Your task to perform on an android device: refresh tabs in the chrome app Image 0: 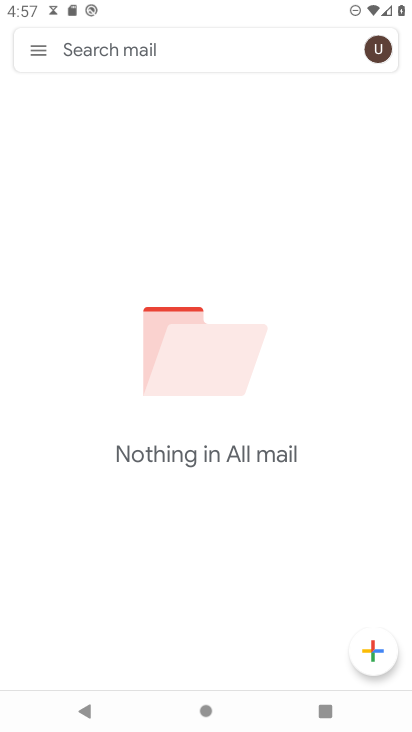
Step 0: press back button
Your task to perform on an android device: refresh tabs in the chrome app Image 1: 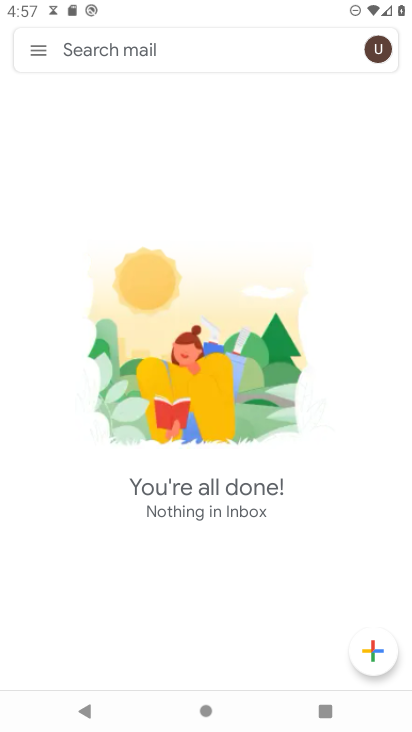
Step 1: press home button
Your task to perform on an android device: refresh tabs in the chrome app Image 2: 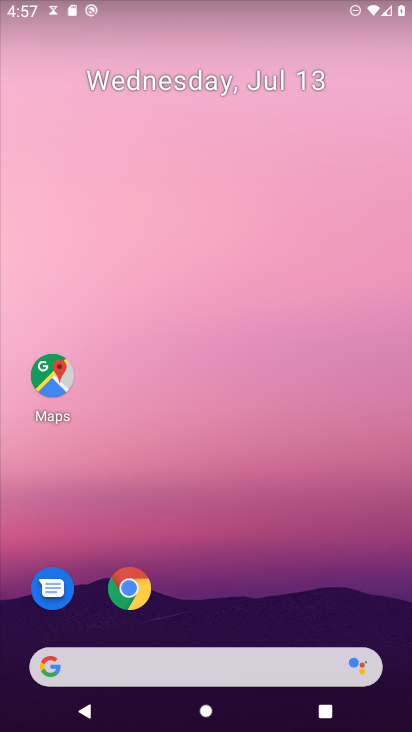
Step 2: drag from (294, 667) to (212, 8)
Your task to perform on an android device: refresh tabs in the chrome app Image 3: 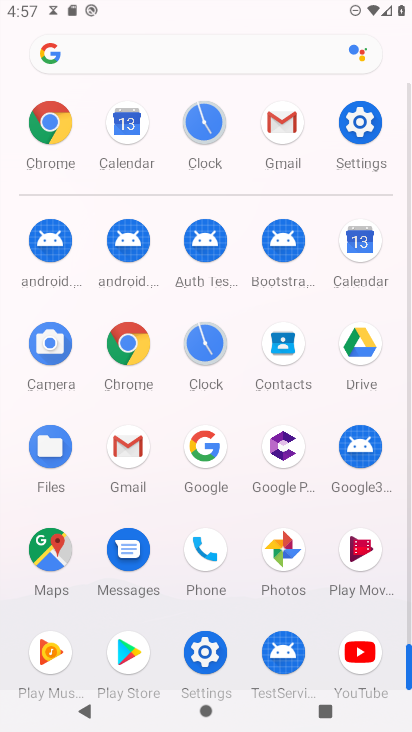
Step 3: click (46, 128)
Your task to perform on an android device: refresh tabs in the chrome app Image 4: 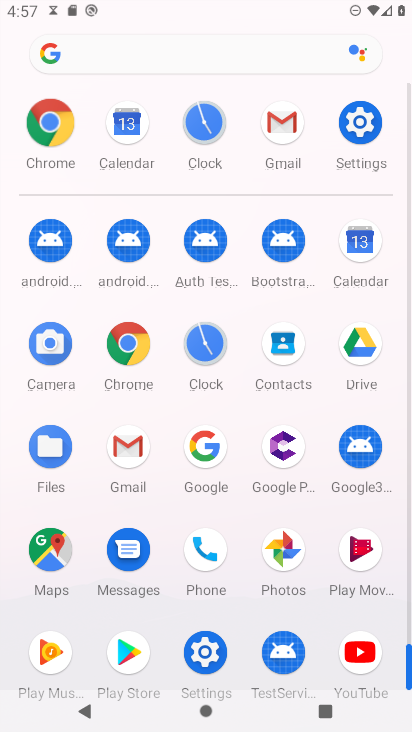
Step 4: click (46, 127)
Your task to perform on an android device: refresh tabs in the chrome app Image 5: 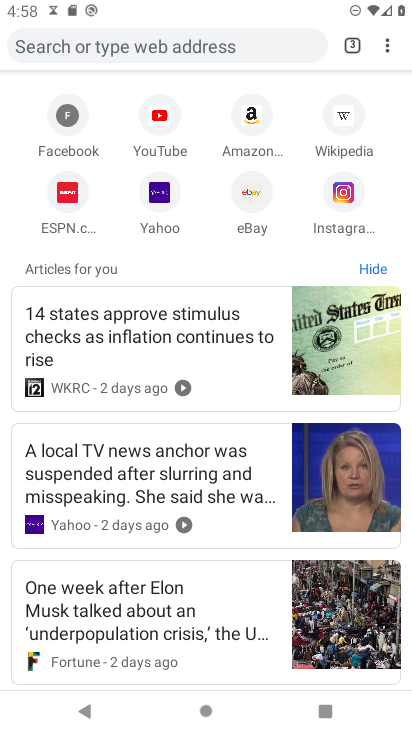
Step 5: drag from (384, 42) to (211, 89)
Your task to perform on an android device: refresh tabs in the chrome app Image 6: 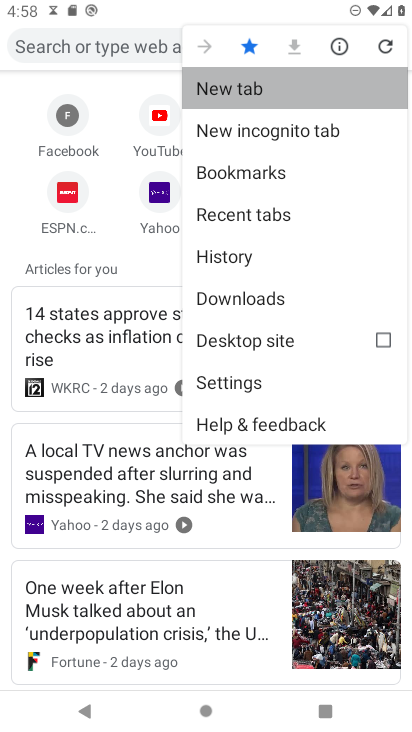
Step 6: click (213, 87)
Your task to perform on an android device: refresh tabs in the chrome app Image 7: 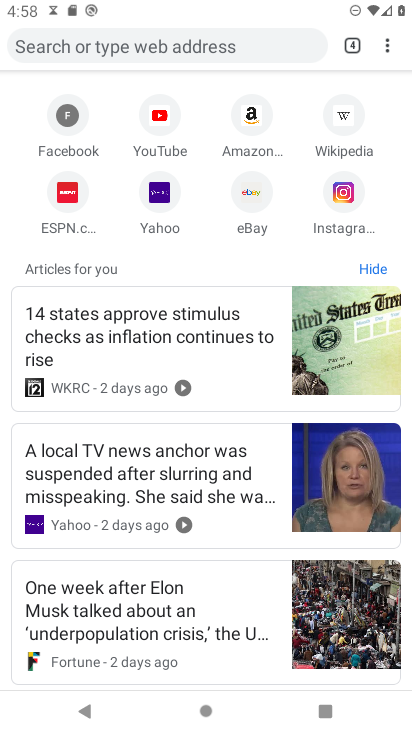
Step 7: click (382, 43)
Your task to perform on an android device: refresh tabs in the chrome app Image 8: 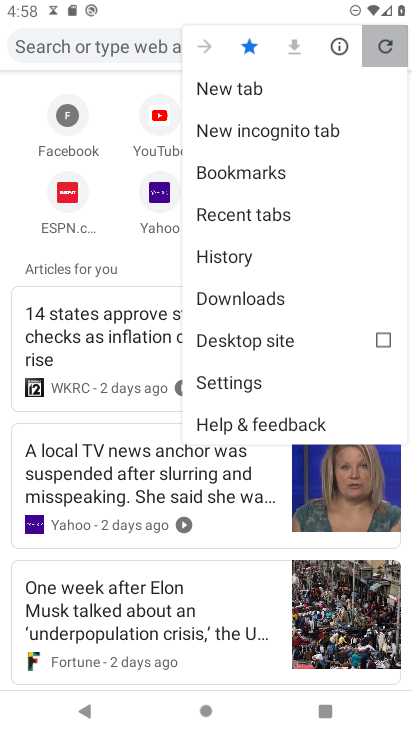
Step 8: click (385, 44)
Your task to perform on an android device: refresh tabs in the chrome app Image 9: 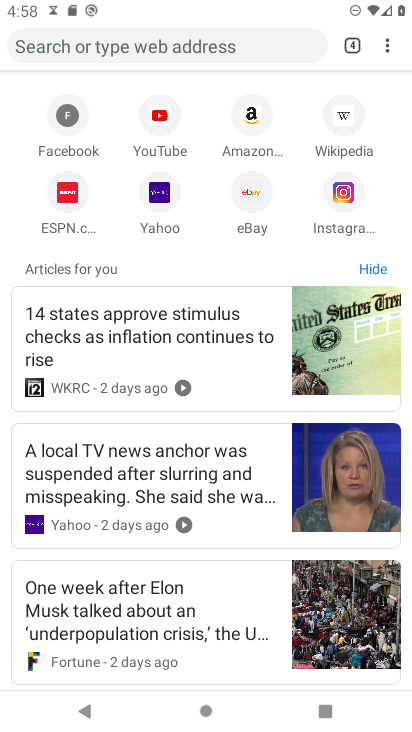
Step 9: task complete